Your task to perform on an android device: Go to Android settings Image 0: 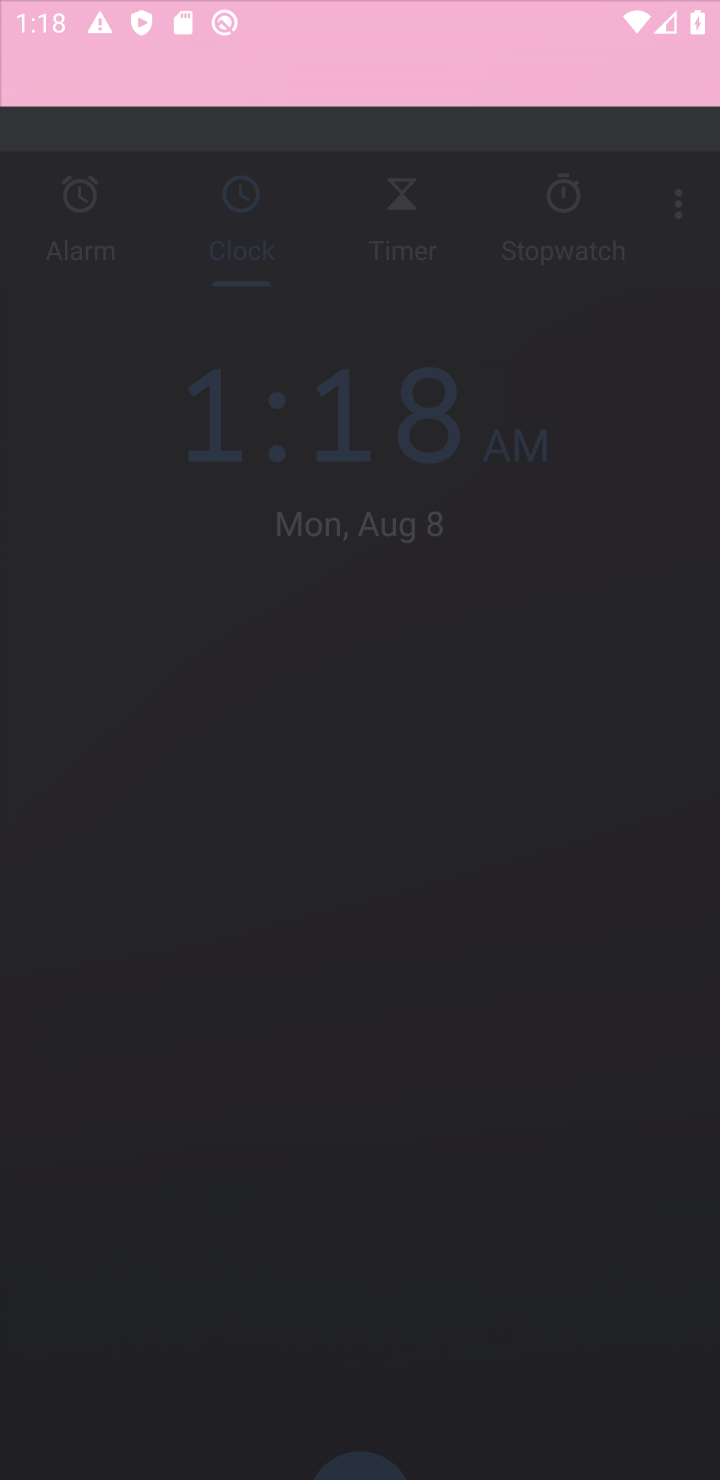
Step 0: press home button
Your task to perform on an android device: Go to Android settings Image 1: 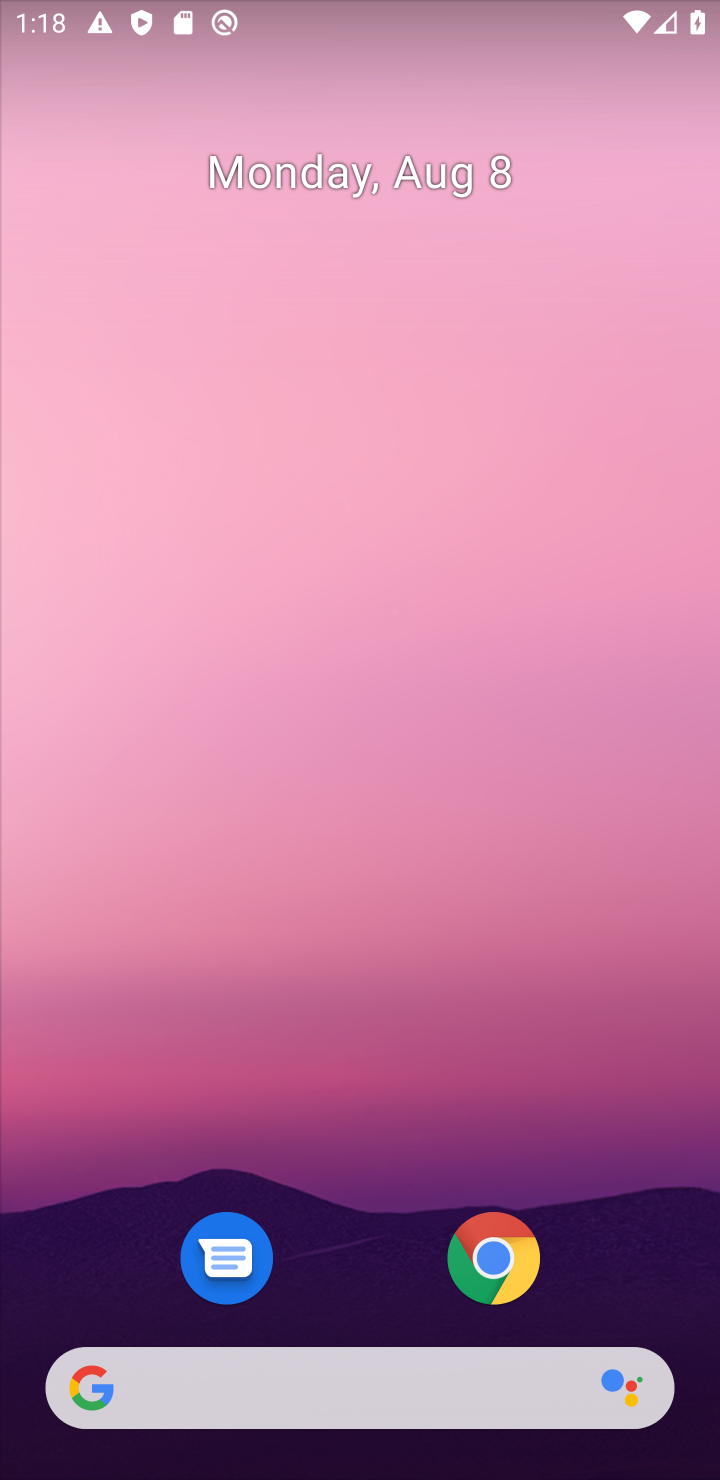
Step 1: drag from (354, 1320) to (547, 272)
Your task to perform on an android device: Go to Android settings Image 2: 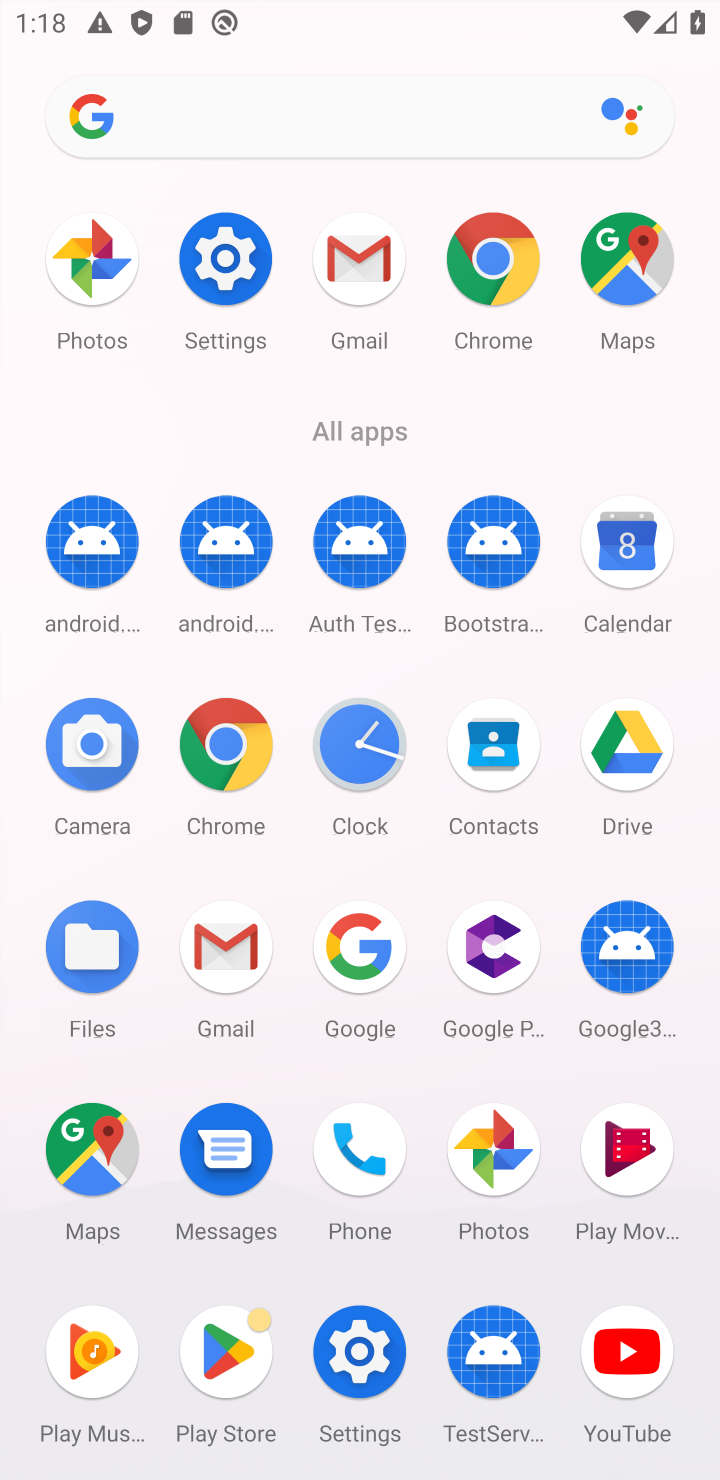
Step 2: click (263, 321)
Your task to perform on an android device: Go to Android settings Image 3: 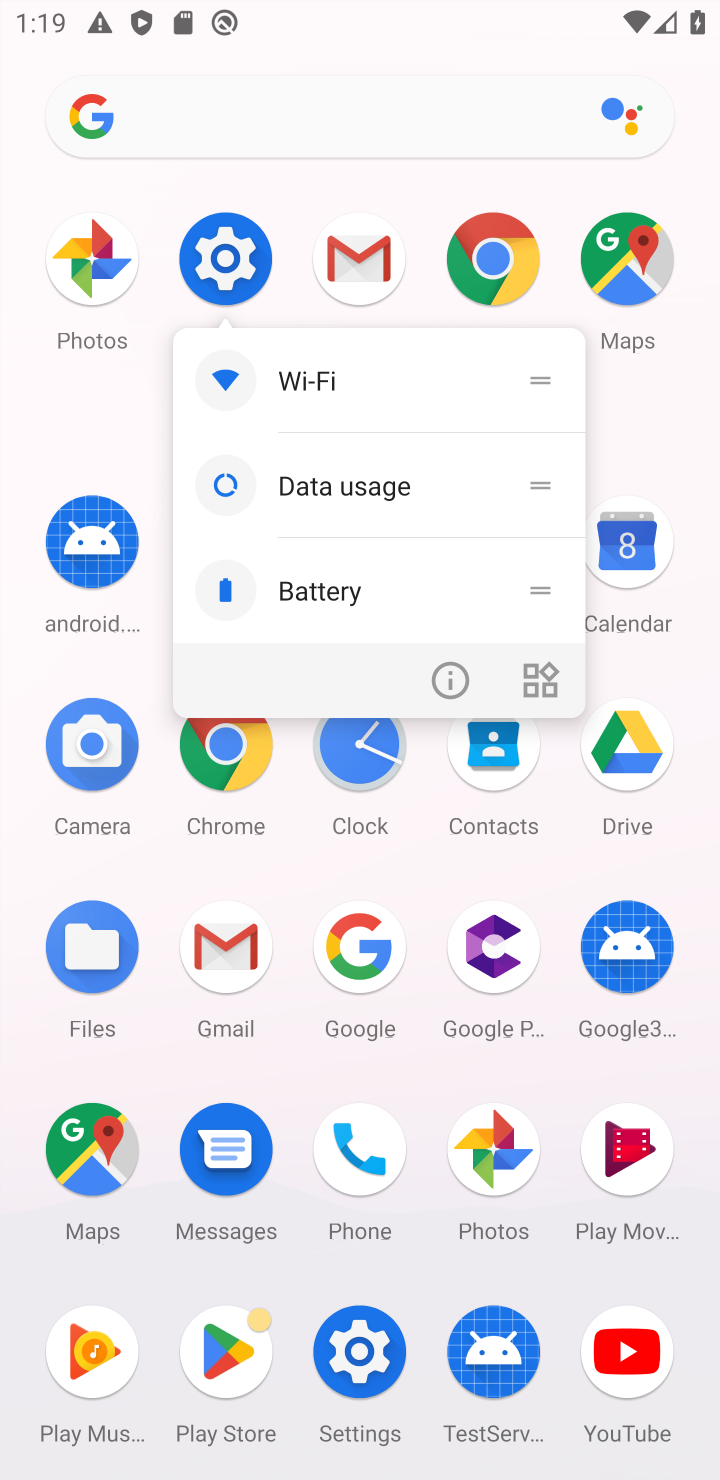
Step 3: click (234, 272)
Your task to perform on an android device: Go to Android settings Image 4: 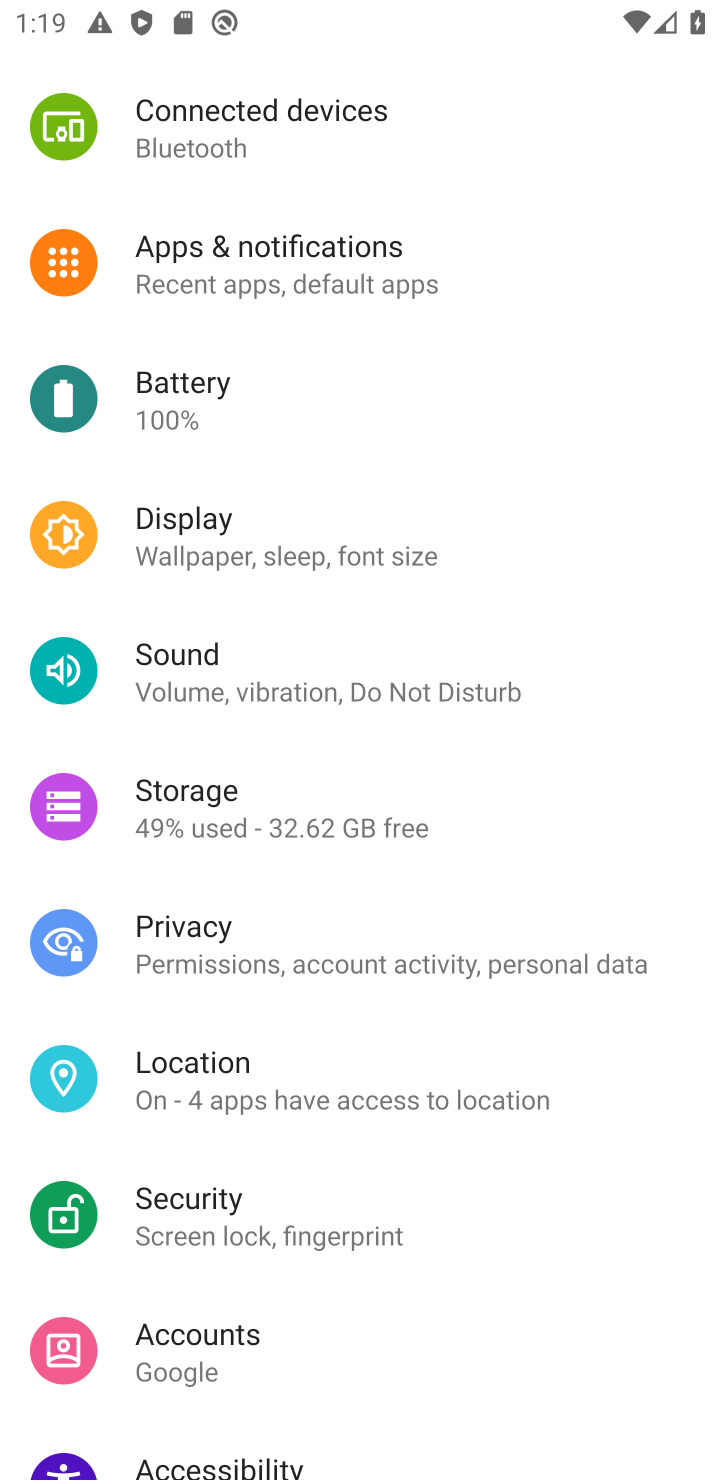
Step 4: drag from (326, 907) to (362, 81)
Your task to perform on an android device: Go to Android settings Image 5: 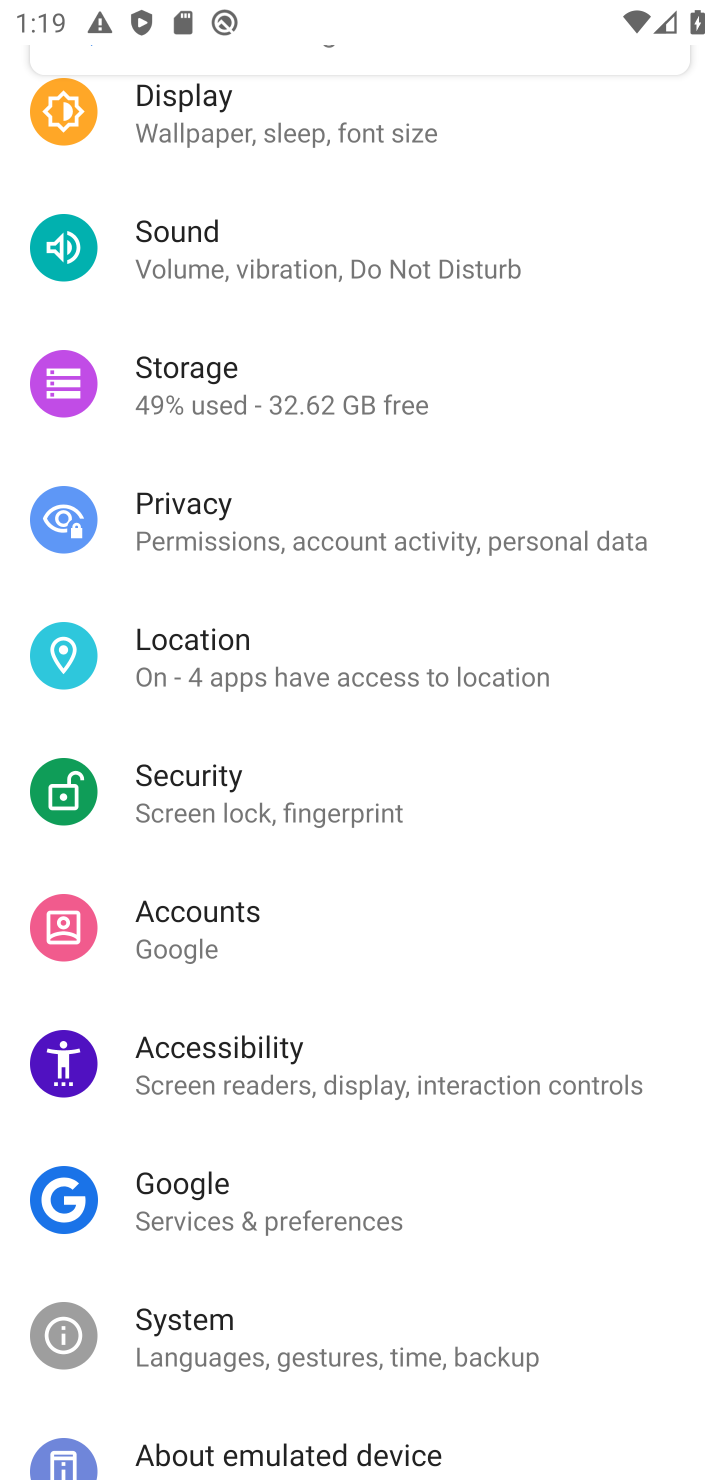
Step 5: click (250, 1398)
Your task to perform on an android device: Go to Android settings Image 6: 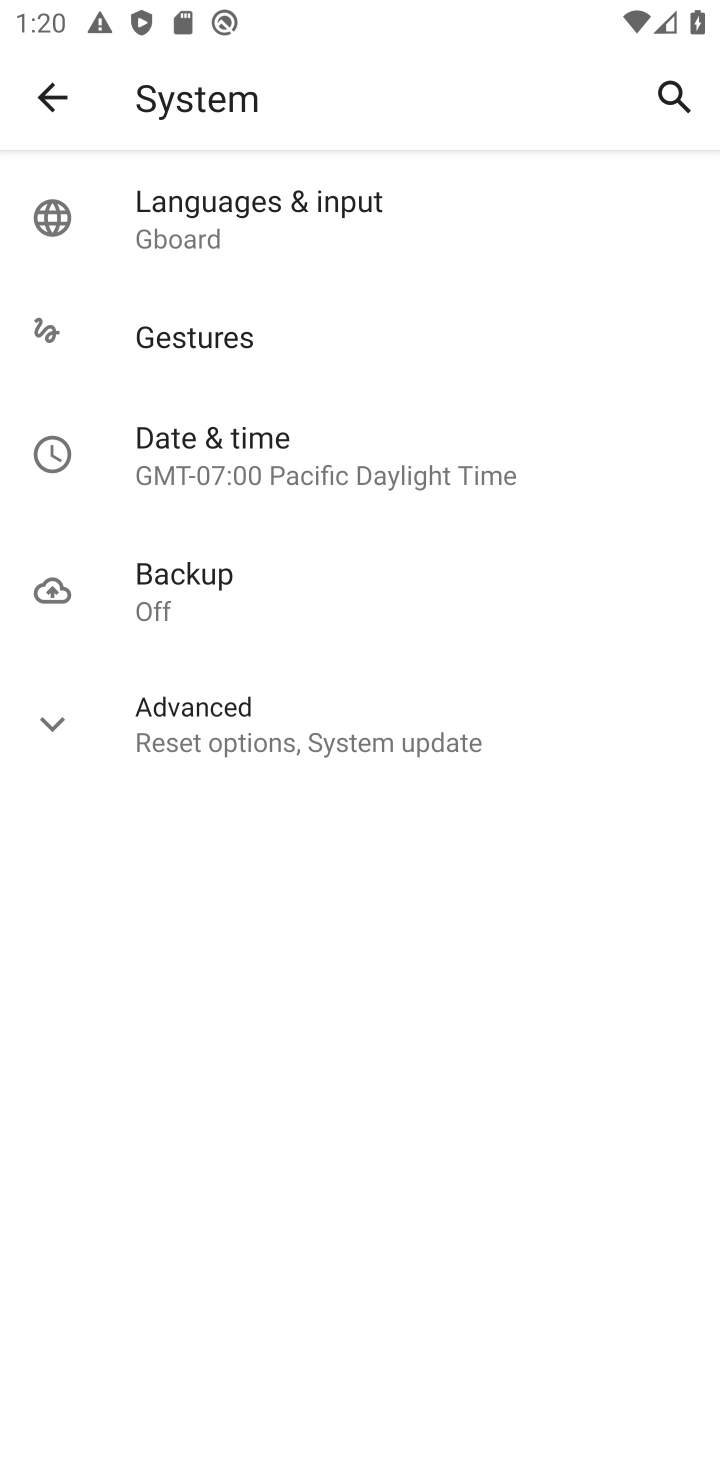
Step 6: click (74, 70)
Your task to perform on an android device: Go to Android settings Image 7: 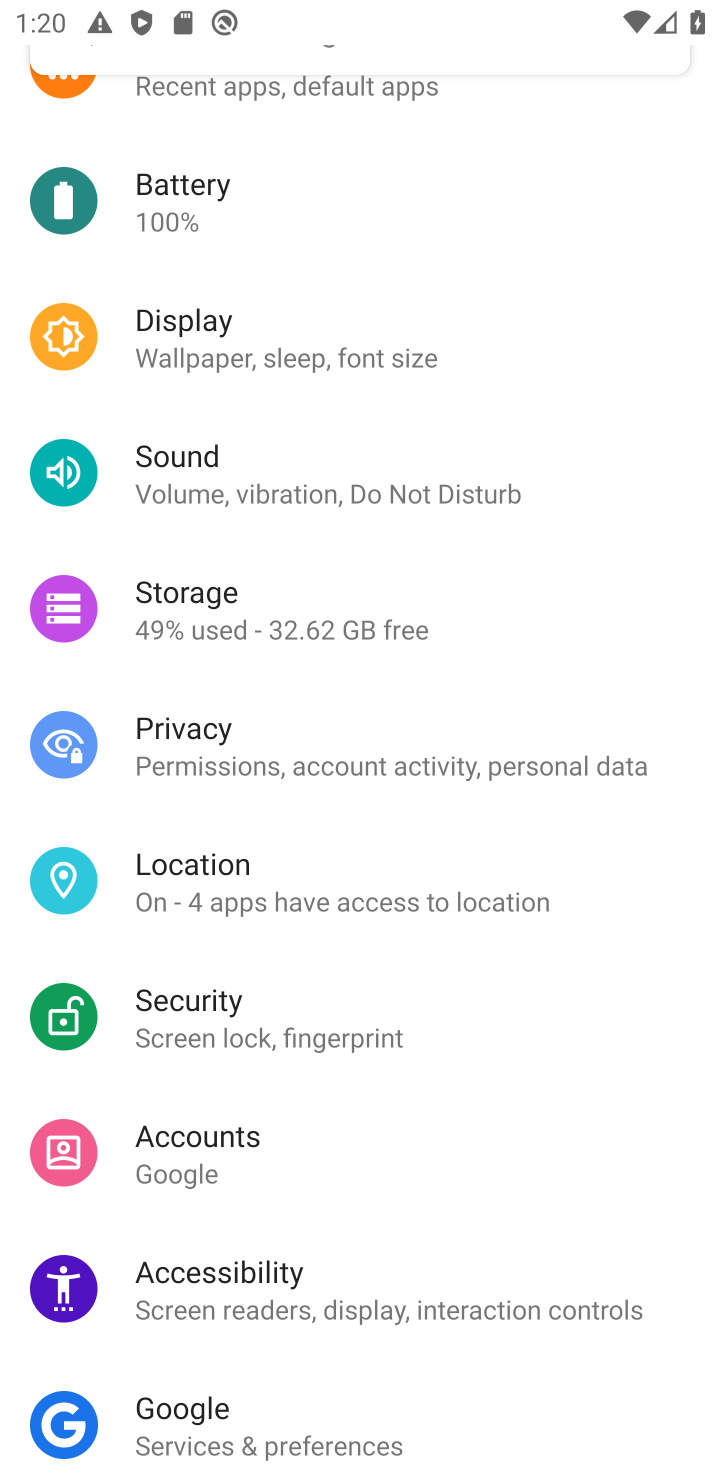
Step 7: drag from (273, 1273) to (530, 24)
Your task to perform on an android device: Go to Android settings Image 8: 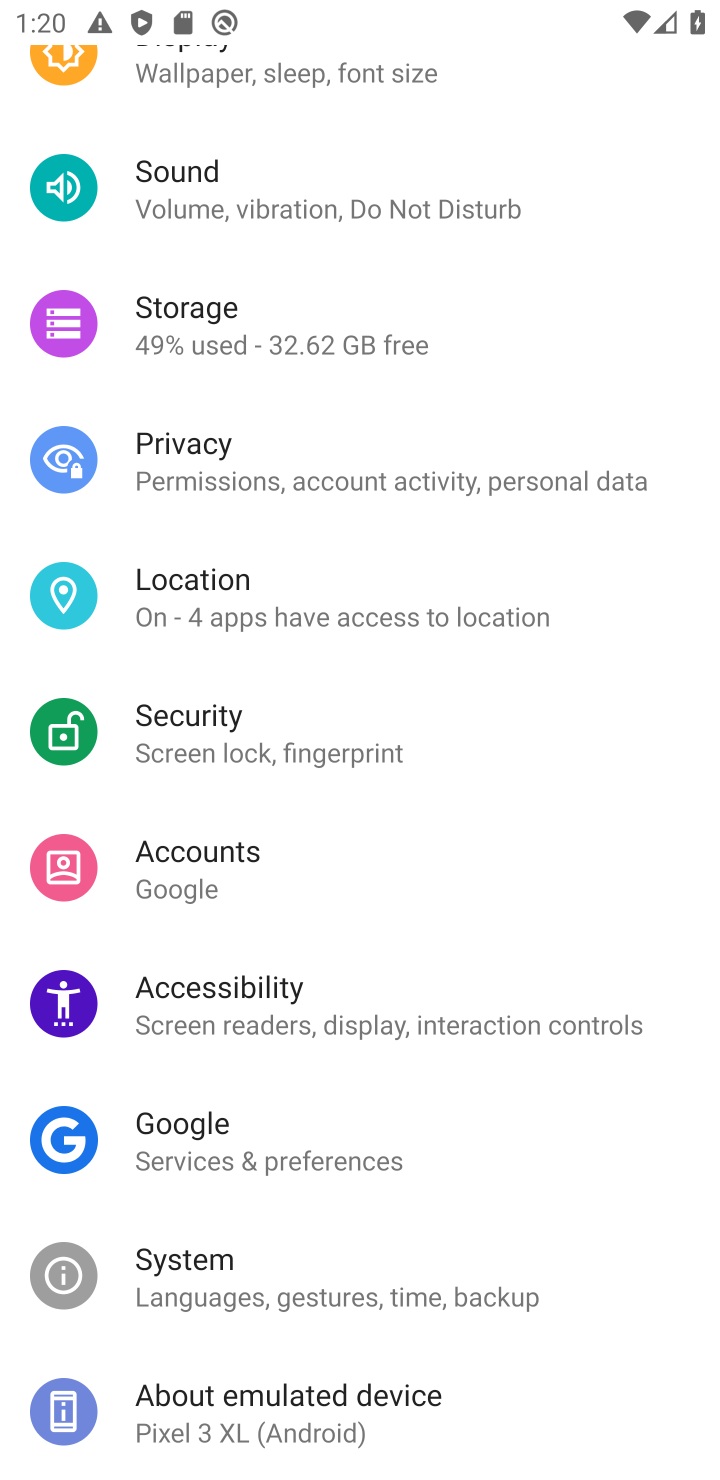
Step 8: click (296, 1428)
Your task to perform on an android device: Go to Android settings Image 9: 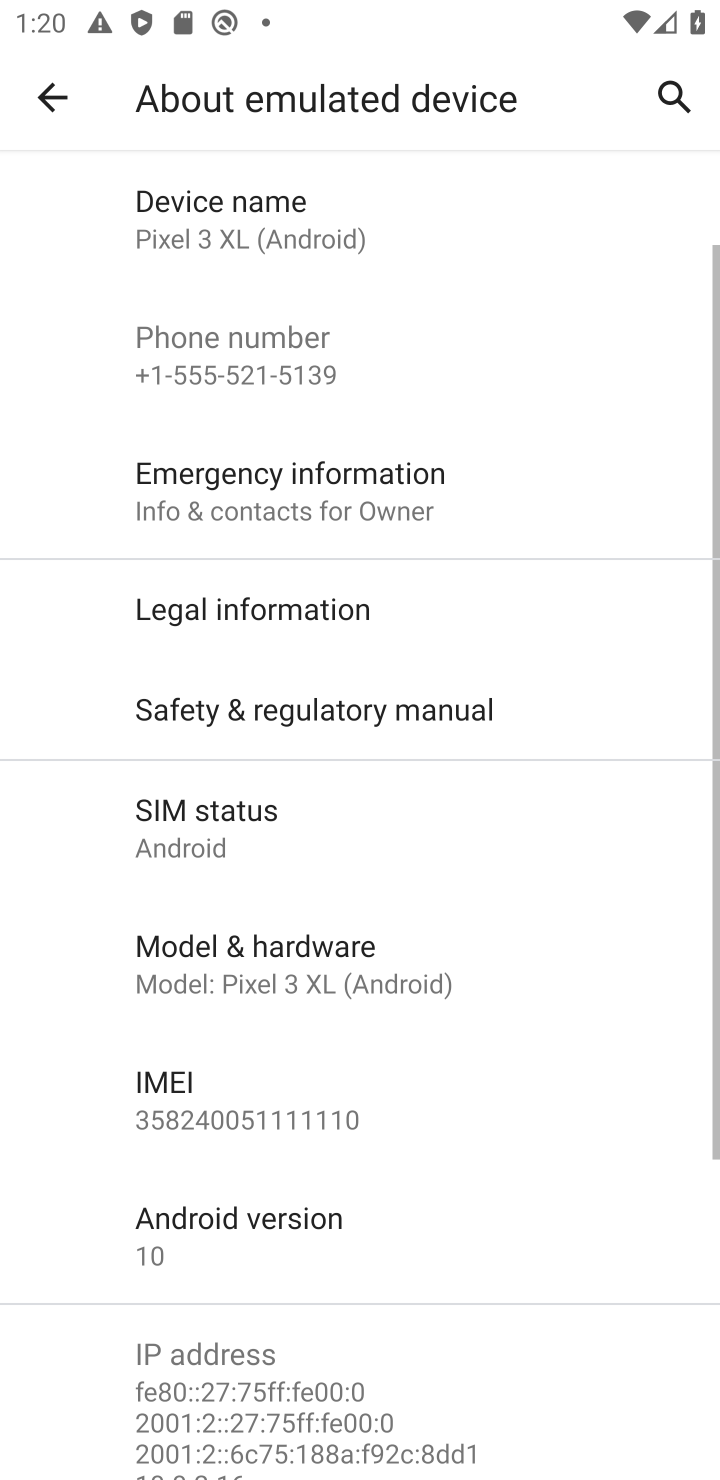
Step 9: task complete